Your task to perform on an android device: turn on improve location accuracy Image 0: 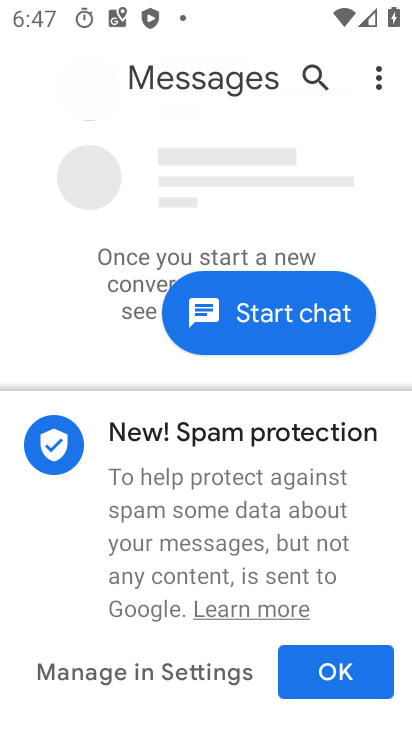
Step 0: press home button
Your task to perform on an android device: turn on improve location accuracy Image 1: 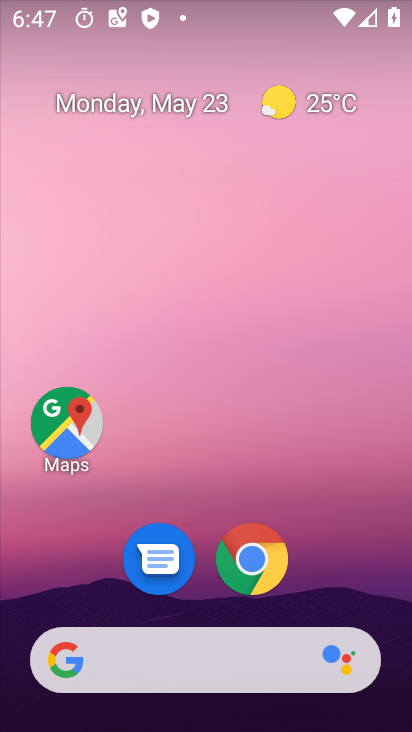
Step 1: drag from (401, 626) to (295, 114)
Your task to perform on an android device: turn on improve location accuracy Image 2: 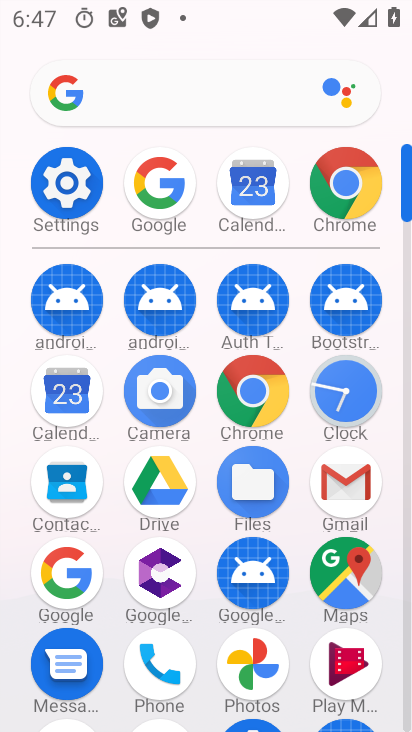
Step 2: click (83, 223)
Your task to perform on an android device: turn on improve location accuracy Image 3: 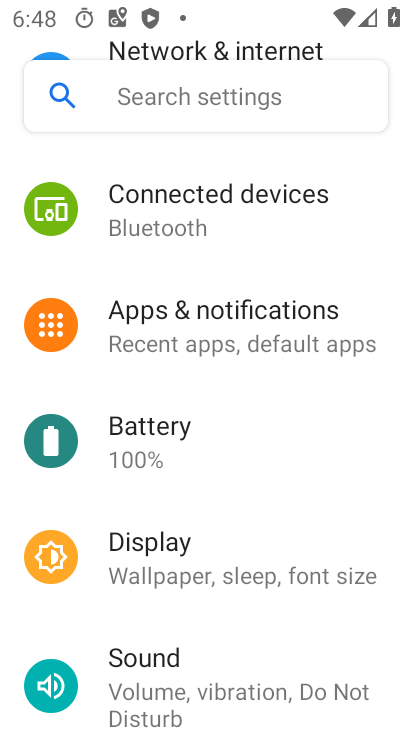
Step 3: drag from (192, 658) to (260, 180)
Your task to perform on an android device: turn on improve location accuracy Image 4: 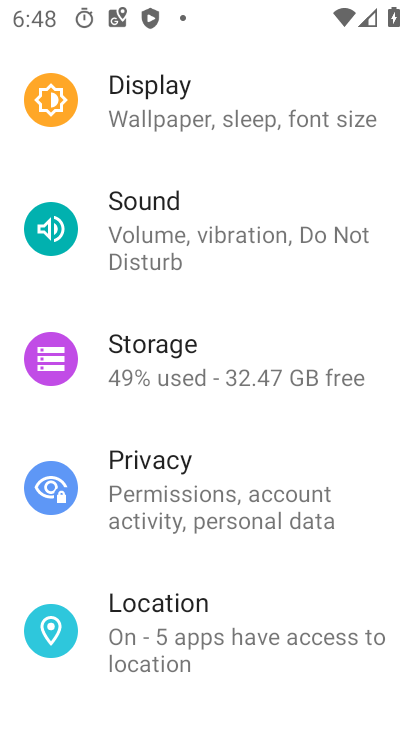
Step 4: click (214, 631)
Your task to perform on an android device: turn on improve location accuracy Image 5: 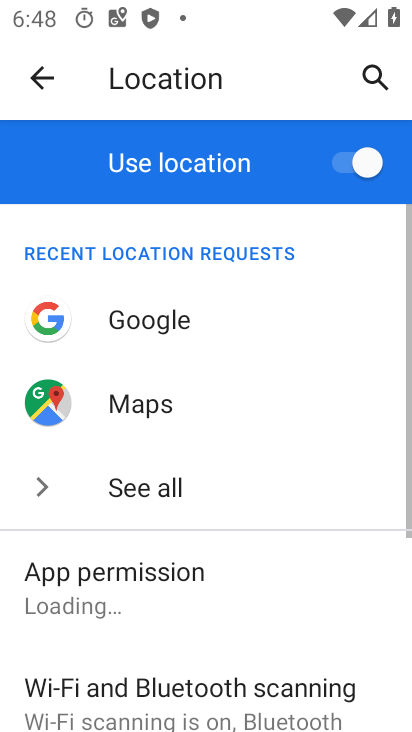
Step 5: drag from (206, 620) to (248, 181)
Your task to perform on an android device: turn on improve location accuracy Image 6: 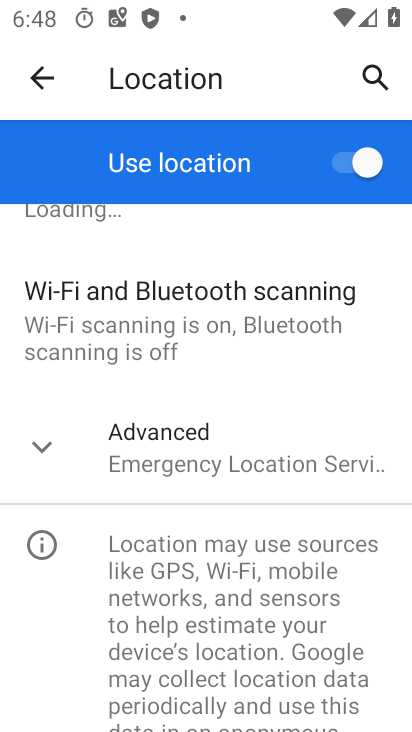
Step 6: click (64, 444)
Your task to perform on an android device: turn on improve location accuracy Image 7: 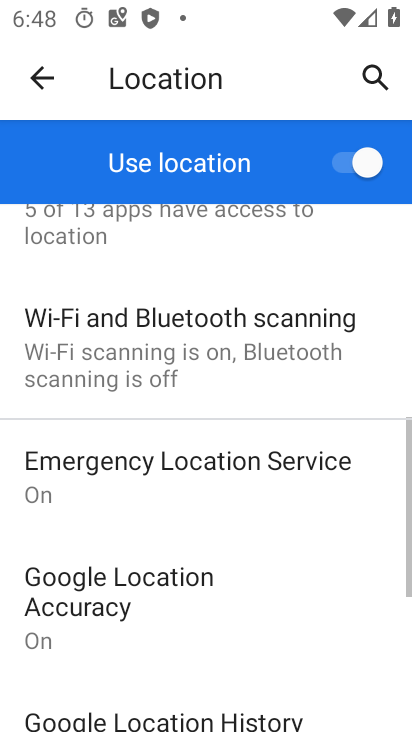
Step 7: click (188, 584)
Your task to perform on an android device: turn on improve location accuracy Image 8: 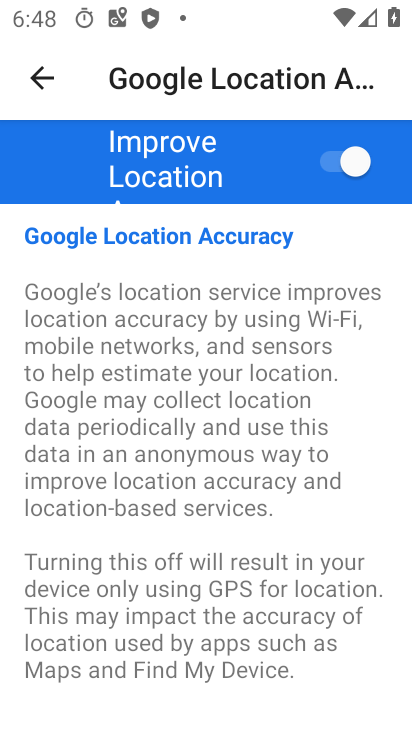
Step 8: task complete